Your task to perform on an android device: turn off location Image 0: 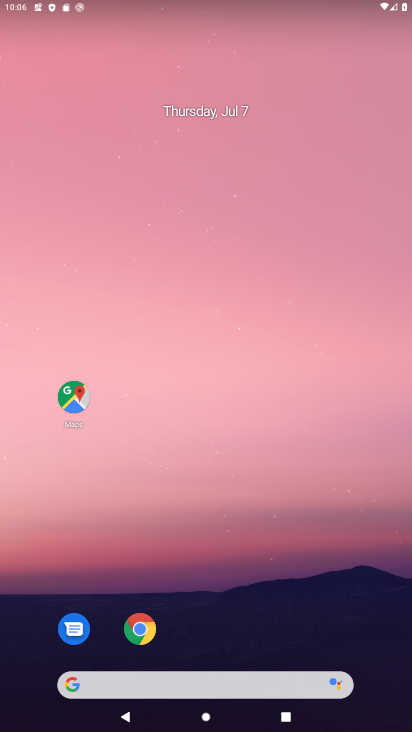
Step 0: drag from (207, 653) to (192, 64)
Your task to perform on an android device: turn off location Image 1: 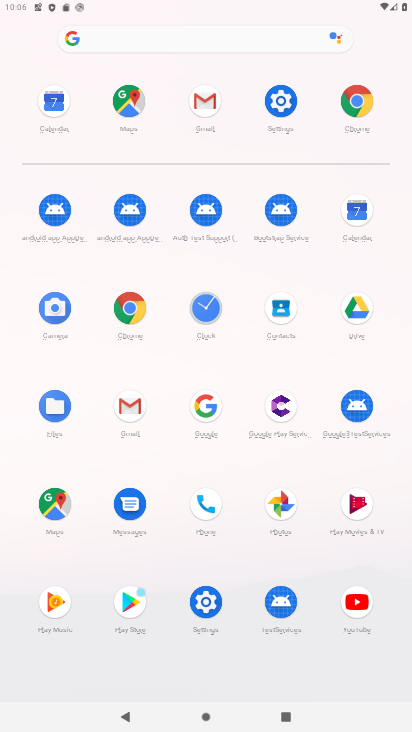
Step 1: click (208, 597)
Your task to perform on an android device: turn off location Image 2: 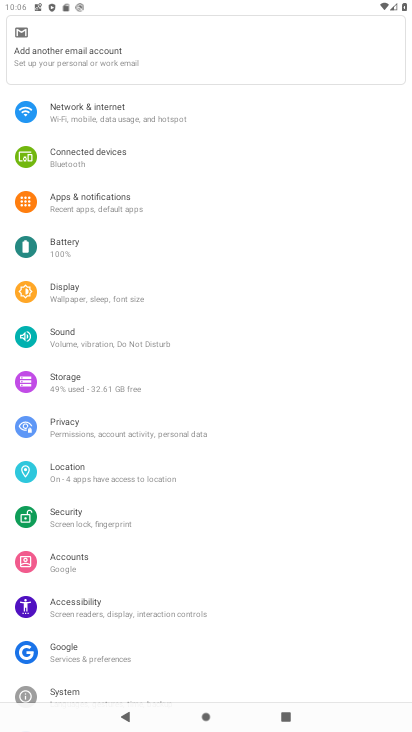
Step 2: click (72, 469)
Your task to perform on an android device: turn off location Image 3: 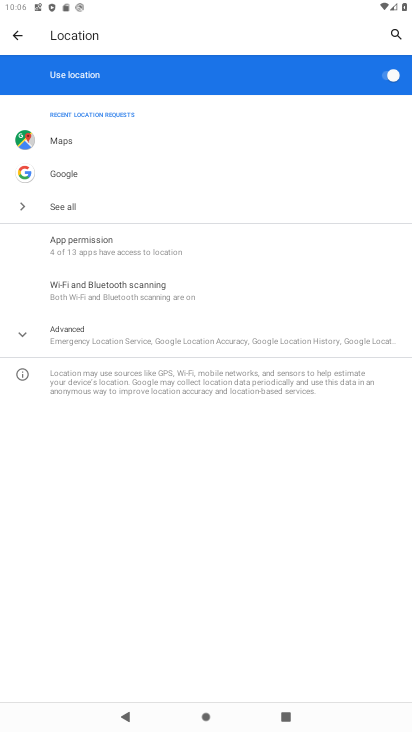
Step 3: click (387, 67)
Your task to perform on an android device: turn off location Image 4: 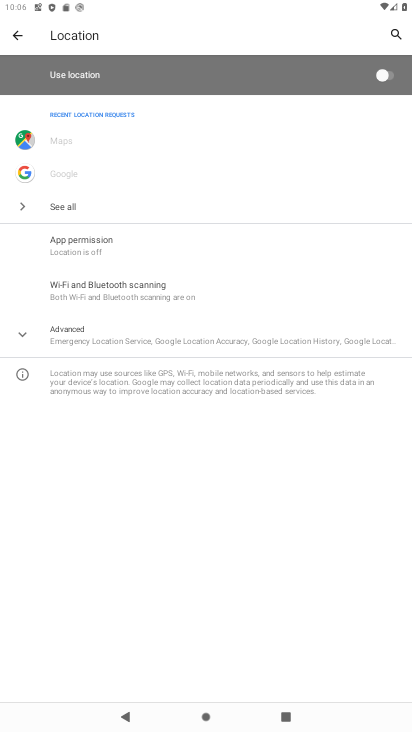
Step 4: task complete